Your task to perform on an android device: install app "PUBG MOBILE" Image 0: 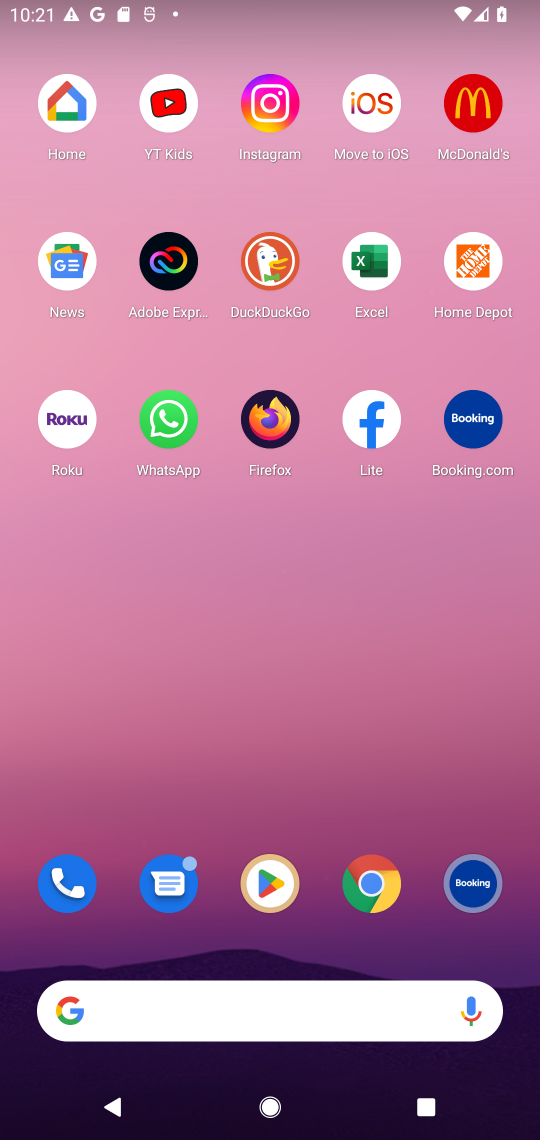
Step 0: press home button
Your task to perform on an android device: install app "PUBG MOBILE" Image 1: 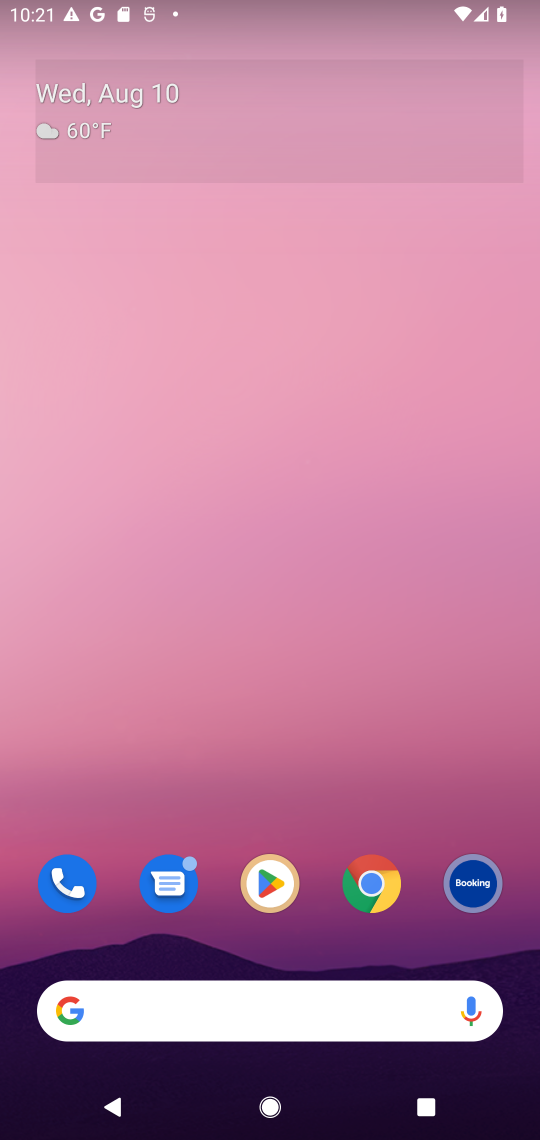
Step 1: drag from (409, 788) to (415, 39)
Your task to perform on an android device: install app "PUBG MOBILE" Image 2: 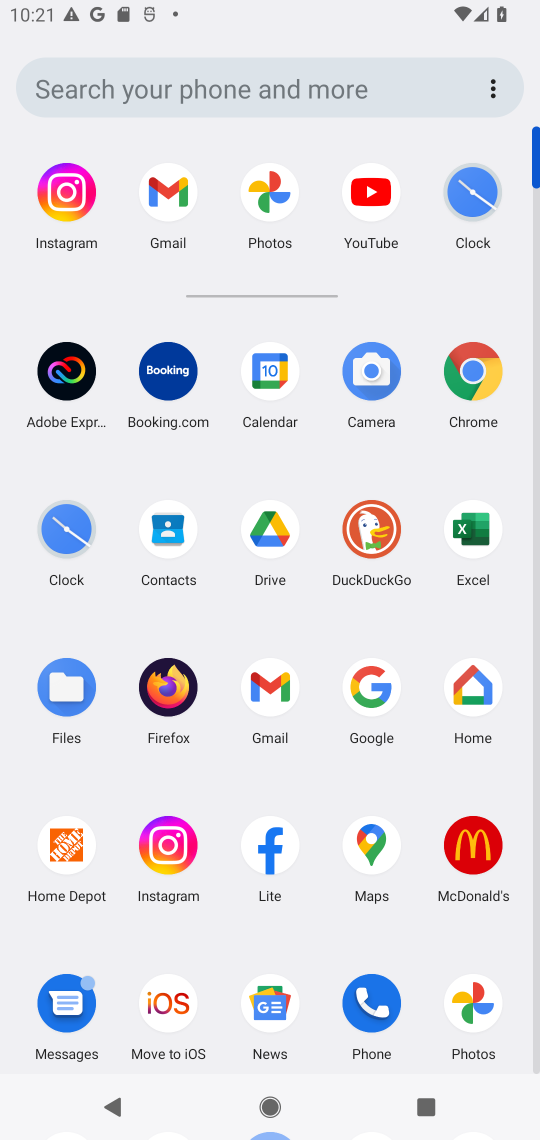
Step 2: drag from (508, 935) to (520, 346)
Your task to perform on an android device: install app "PUBG MOBILE" Image 3: 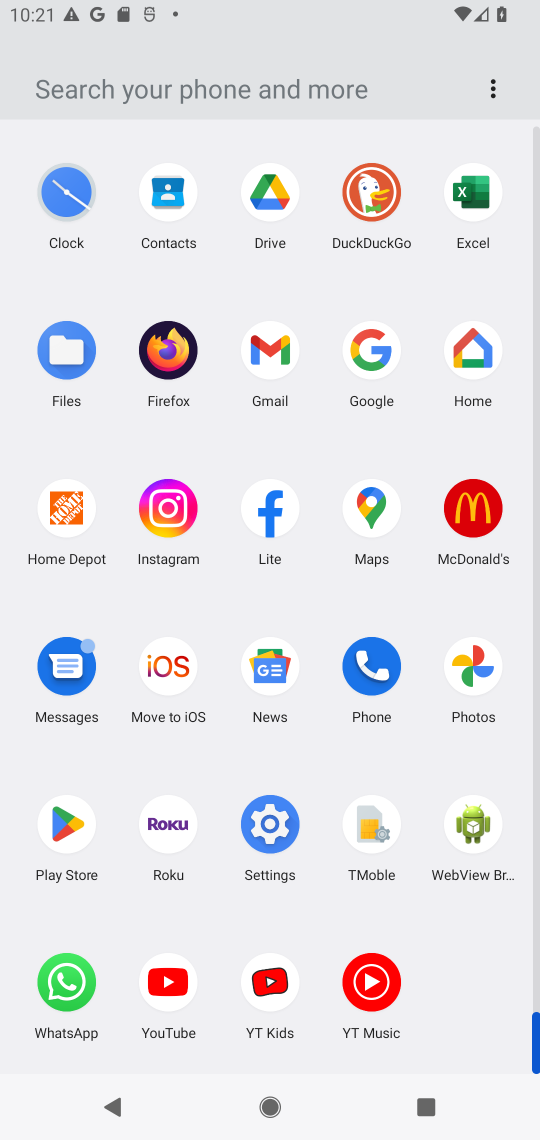
Step 3: click (68, 814)
Your task to perform on an android device: install app "PUBG MOBILE" Image 4: 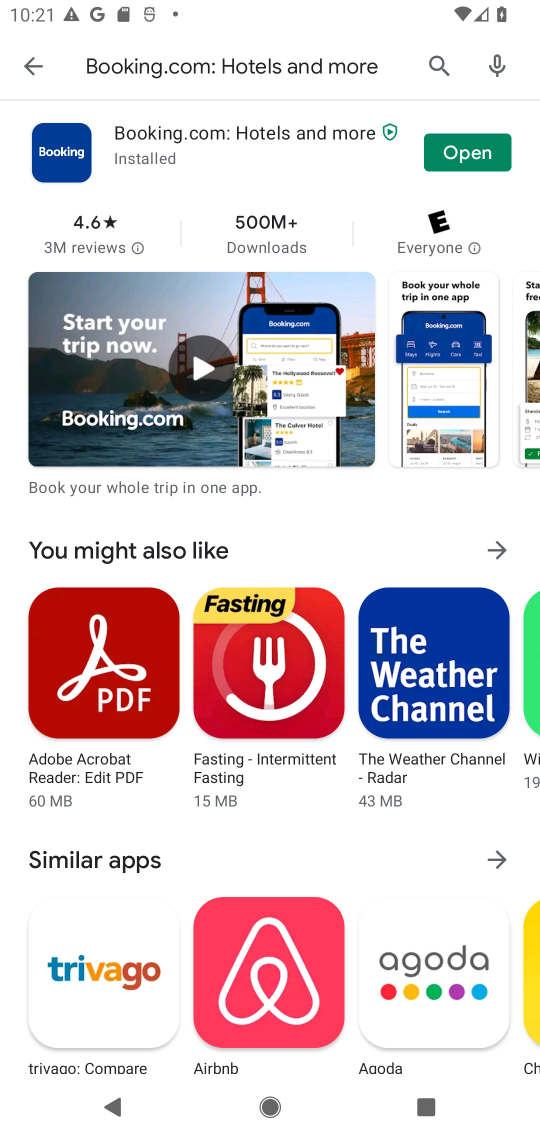
Step 4: click (440, 63)
Your task to perform on an android device: install app "PUBG MOBILE" Image 5: 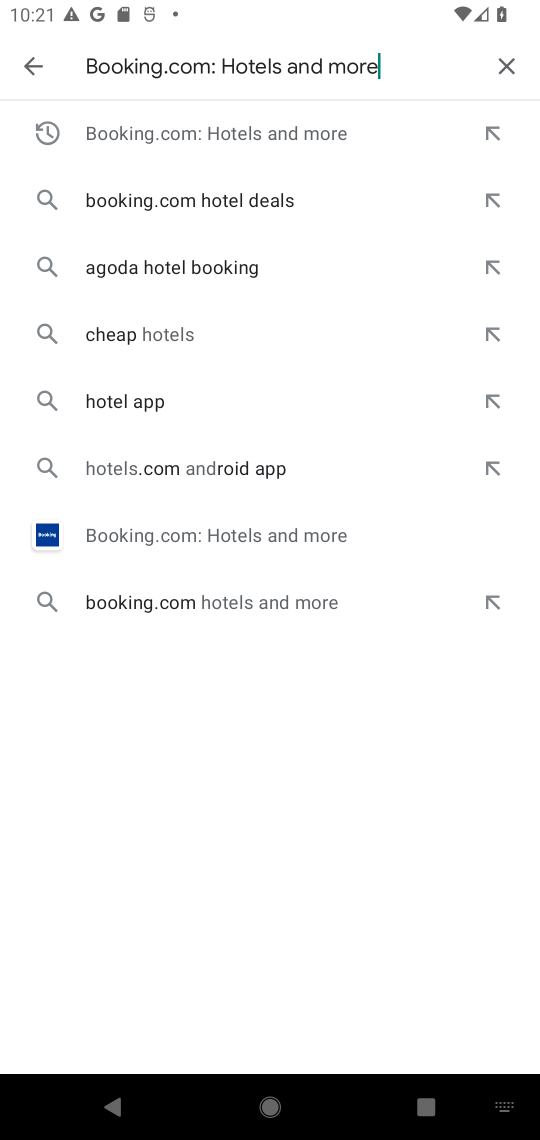
Step 5: click (508, 69)
Your task to perform on an android device: install app "PUBG MOBILE" Image 6: 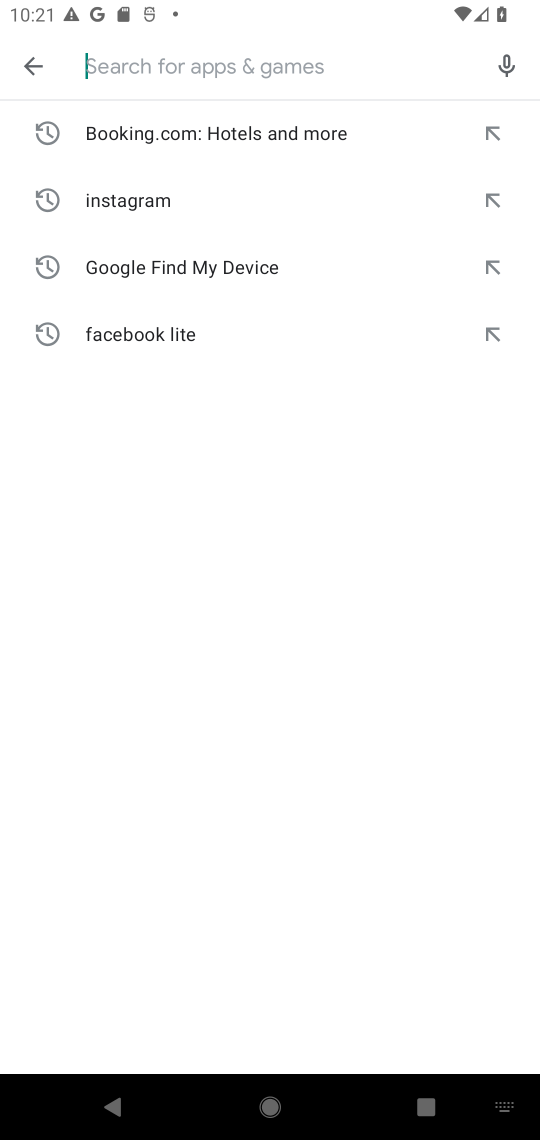
Step 6: type "pubg mobile"
Your task to perform on an android device: install app "PUBG MOBILE" Image 7: 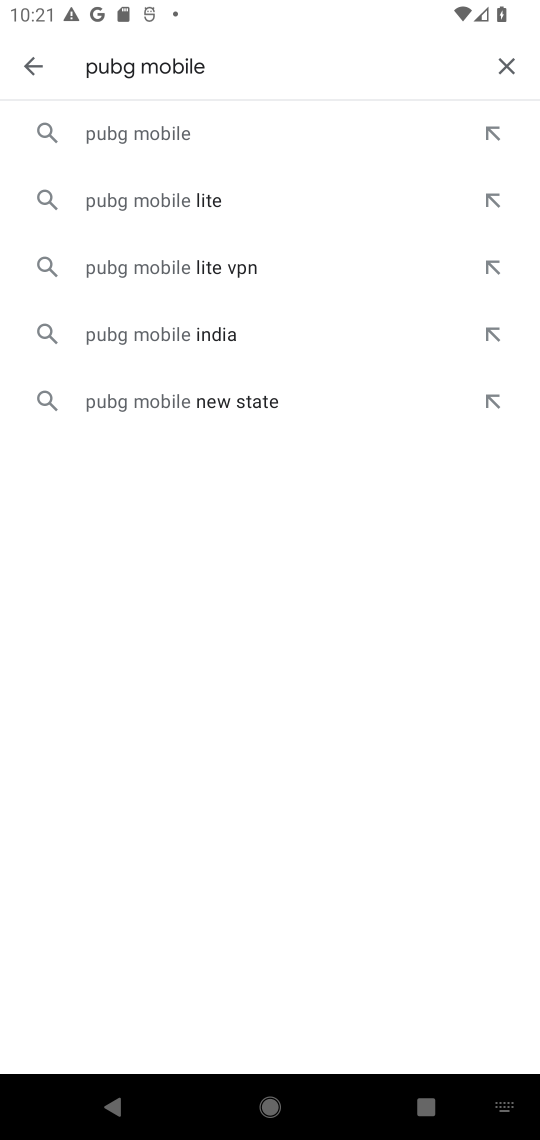
Step 7: click (140, 130)
Your task to perform on an android device: install app "PUBG MOBILE" Image 8: 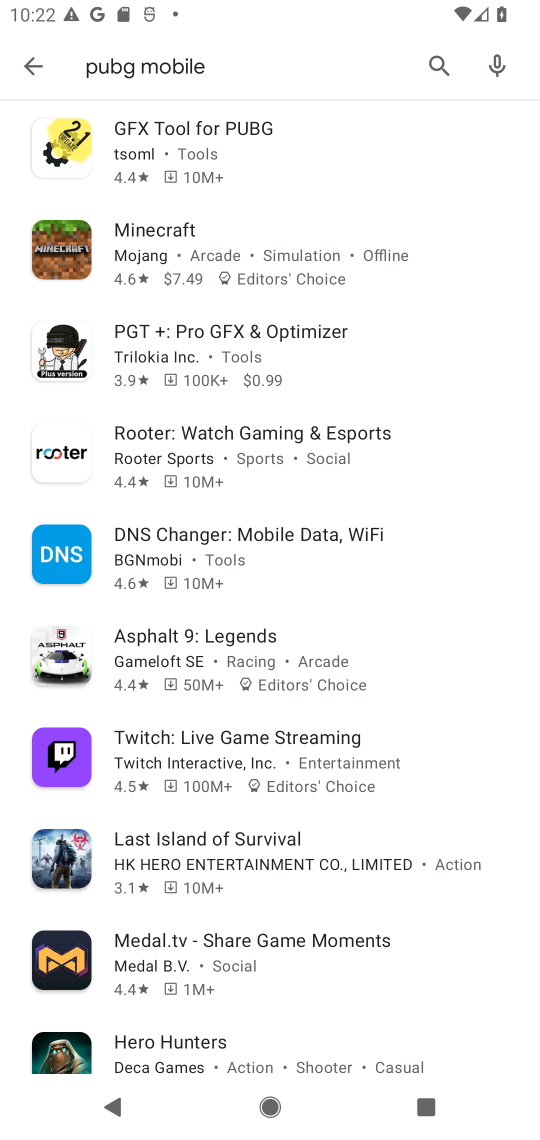
Step 8: task complete